Your task to perform on an android device: Is it going to rain this weekend? Image 0: 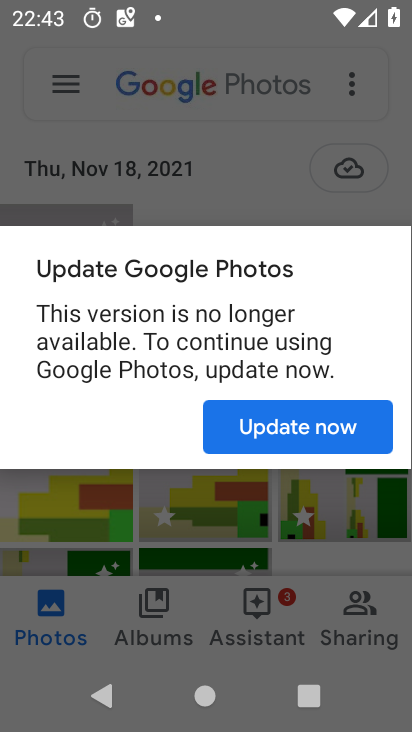
Step 0: press home button
Your task to perform on an android device: Is it going to rain this weekend? Image 1: 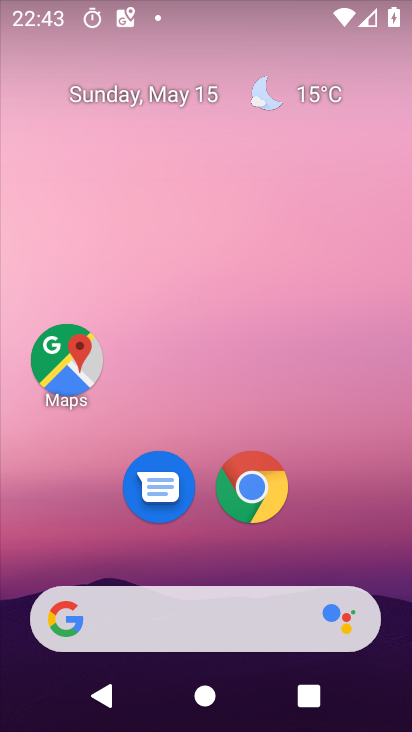
Step 1: drag from (342, 314) to (365, 547)
Your task to perform on an android device: Is it going to rain this weekend? Image 2: 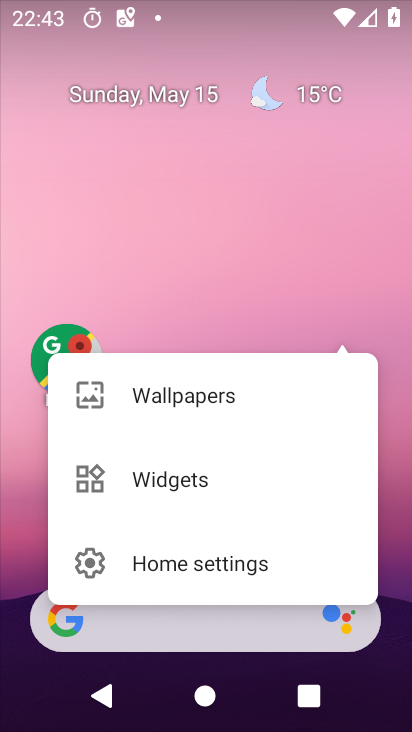
Step 2: click (320, 87)
Your task to perform on an android device: Is it going to rain this weekend? Image 3: 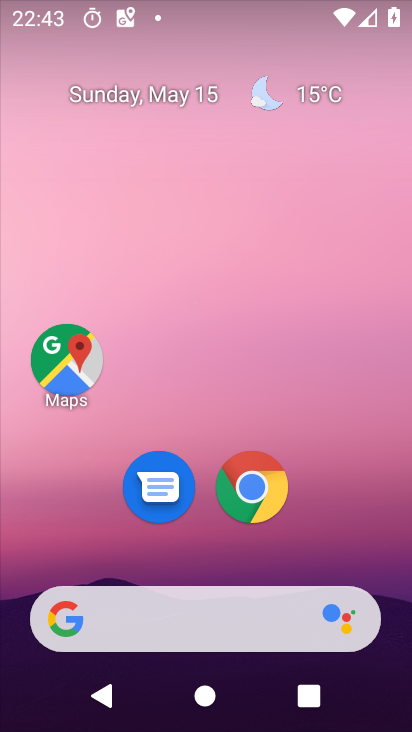
Step 3: click (337, 91)
Your task to perform on an android device: Is it going to rain this weekend? Image 4: 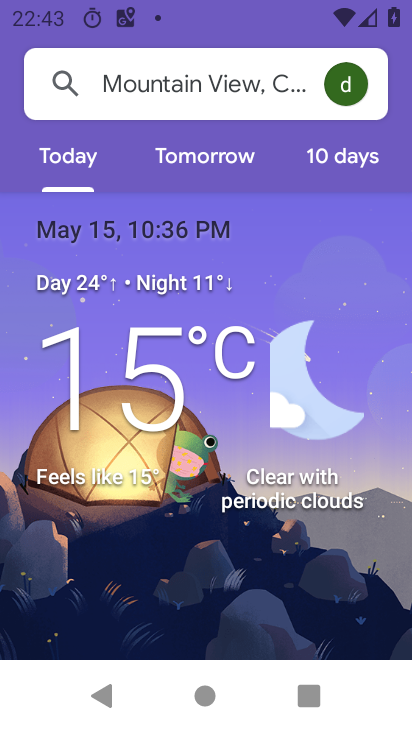
Step 4: click (362, 163)
Your task to perform on an android device: Is it going to rain this weekend? Image 5: 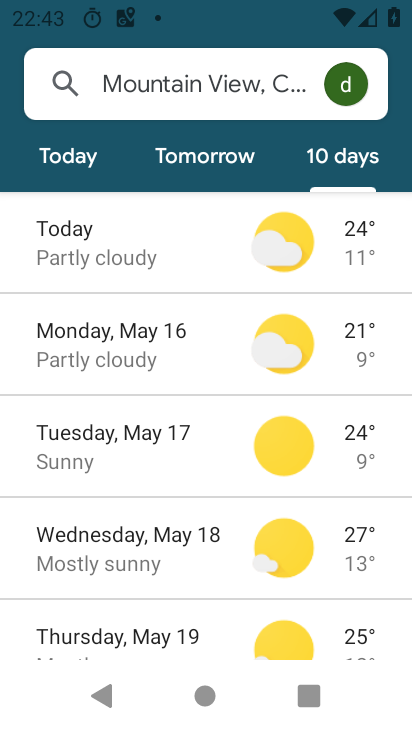
Step 5: task complete